Your task to perform on an android device: Go to Reddit.com Image 0: 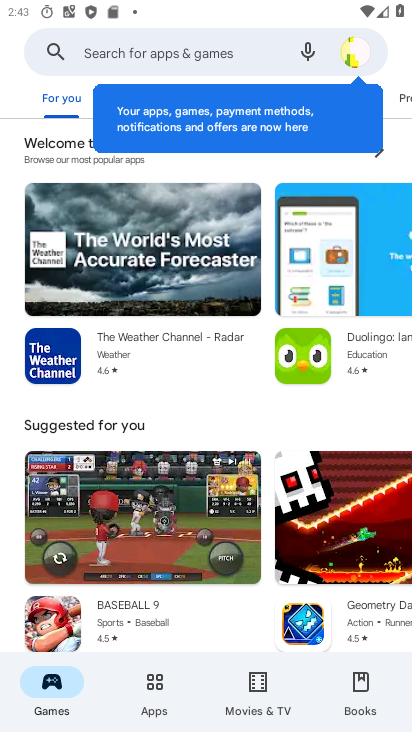
Step 0: click (249, 55)
Your task to perform on an android device: Go to Reddit.com Image 1: 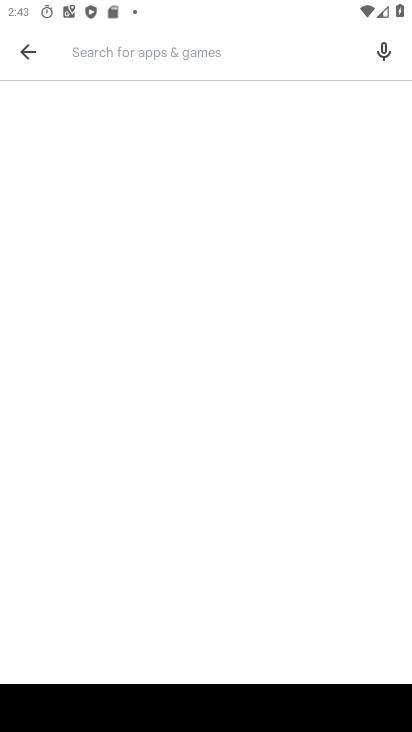
Step 1: type "Reddit.com"
Your task to perform on an android device: Go to Reddit.com Image 2: 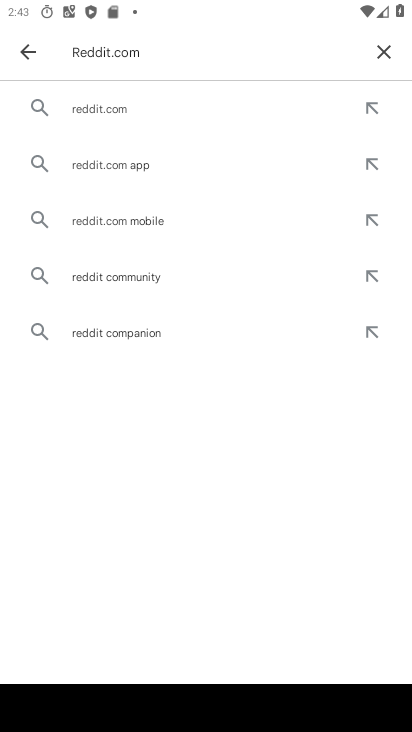
Step 2: click (108, 107)
Your task to perform on an android device: Go to Reddit.com Image 3: 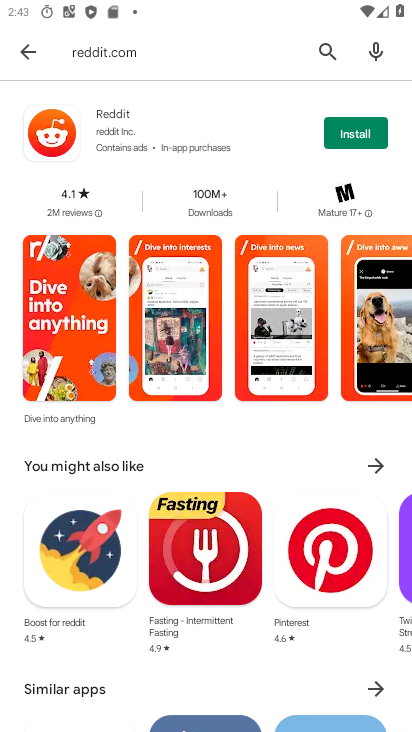
Step 3: task complete